Your task to perform on an android device: What's on my calendar today? Image 0: 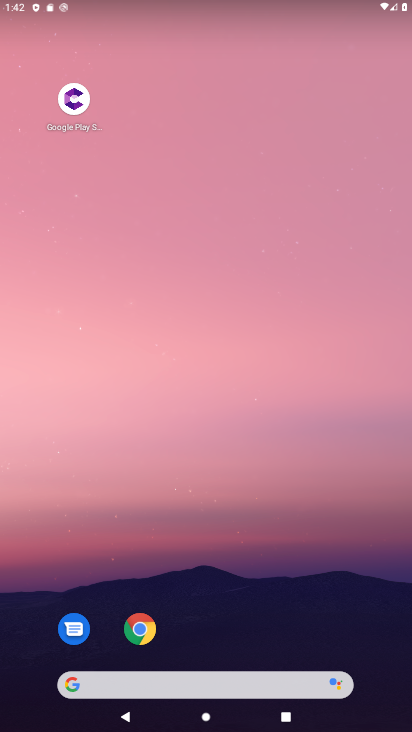
Step 0: drag from (213, 685) to (279, 146)
Your task to perform on an android device: What's on my calendar today? Image 1: 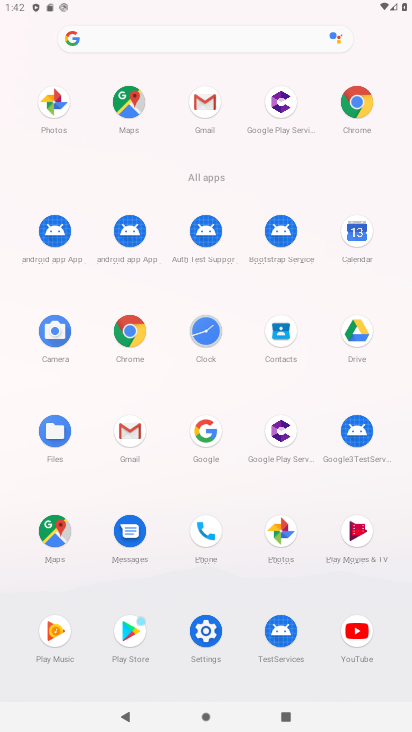
Step 1: click (358, 235)
Your task to perform on an android device: What's on my calendar today? Image 2: 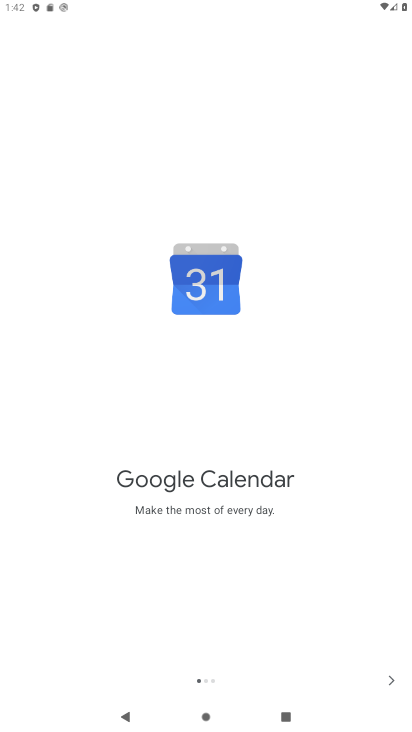
Step 2: click (392, 679)
Your task to perform on an android device: What's on my calendar today? Image 3: 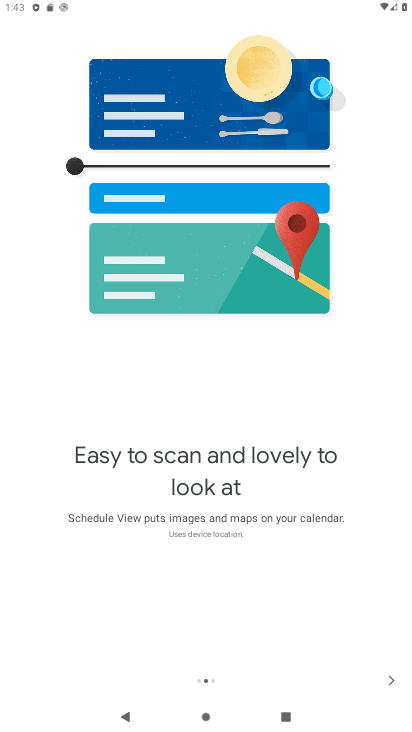
Step 3: click (392, 679)
Your task to perform on an android device: What's on my calendar today? Image 4: 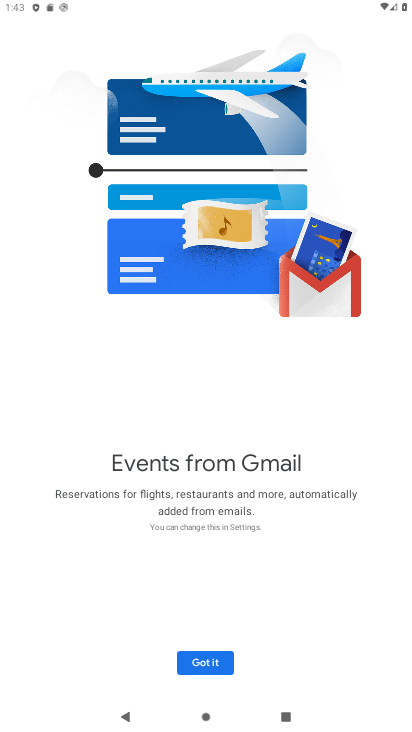
Step 4: click (201, 666)
Your task to perform on an android device: What's on my calendar today? Image 5: 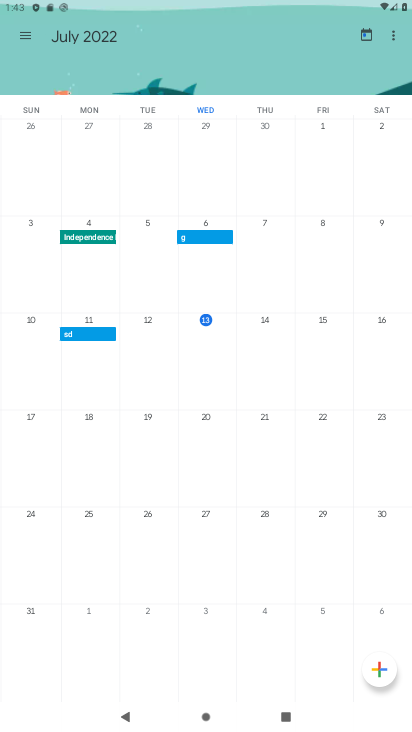
Step 5: click (200, 320)
Your task to perform on an android device: What's on my calendar today? Image 6: 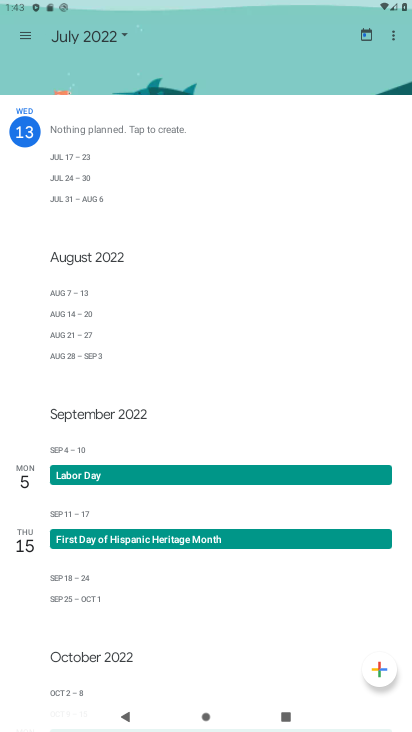
Step 6: click (23, 35)
Your task to perform on an android device: What's on my calendar today? Image 7: 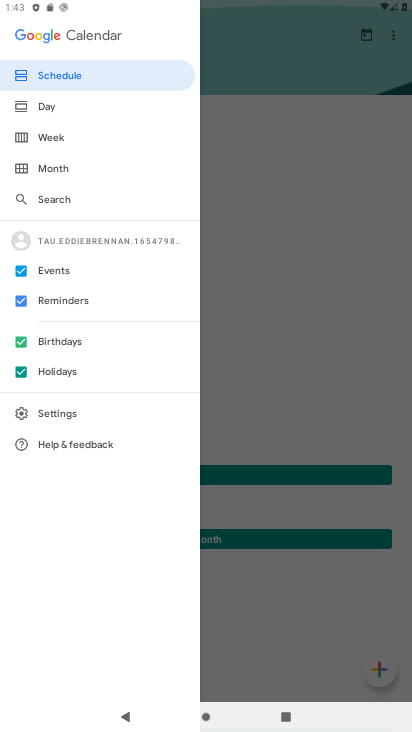
Step 7: click (50, 82)
Your task to perform on an android device: What's on my calendar today? Image 8: 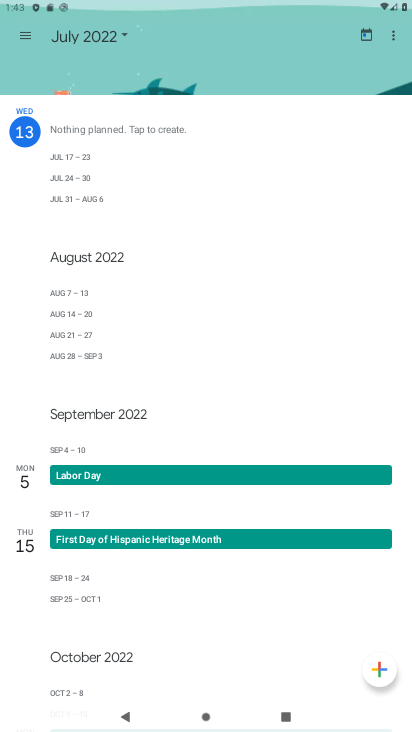
Step 8: task complete